Your task to perform on an android device: Open Google Chrome and click the shortcut for Amazon.com Image 0: 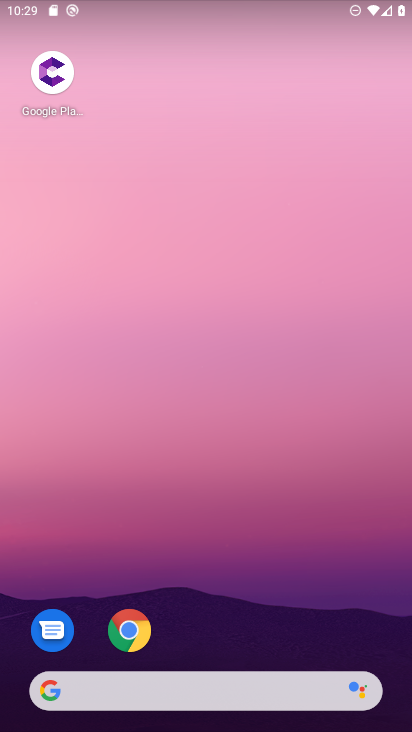
Step 0: click (129, 632)
Your task to perform on an android device: Open Google Chrome and click the shortcut for Amazon.com Image 1: 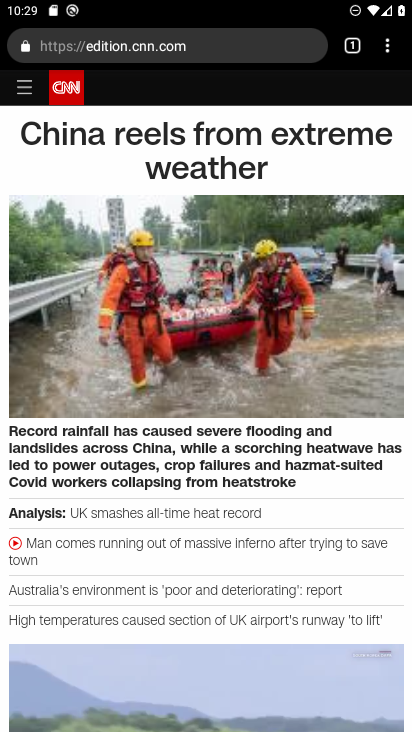
Step 1: click (220, 52)
Your task to perform on an android device: Open Google Chrome and click the shortcut for Amazon.com Image 2: 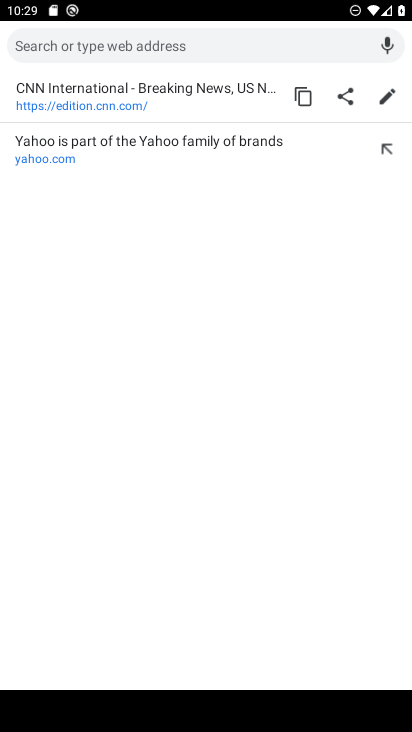
Step 2: type "Amazon.com"
Your task to perform on an android device: Open Google Chrome and click the shortcut for Amazon.com Image 3: 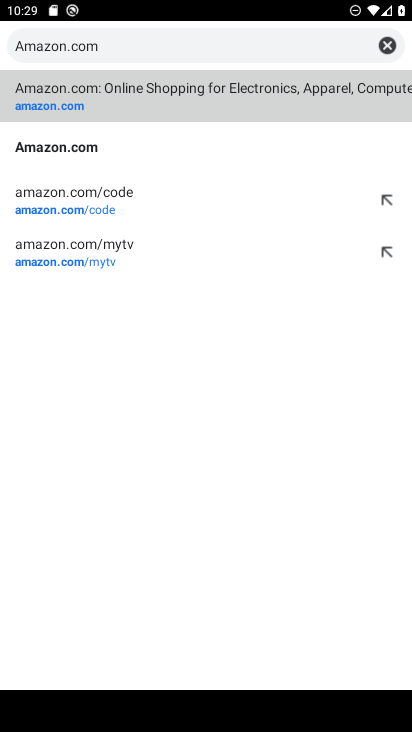
Step 3: click (89, 146)
Your task to perform on an android device: Open Google Chrome and click the shortcut for Amazon.com Image 4: 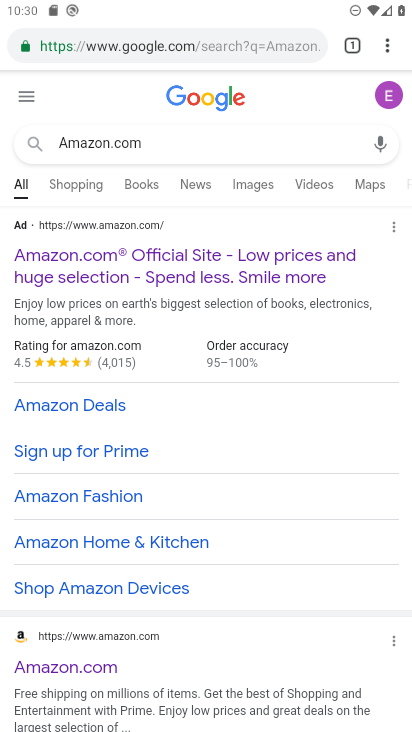
Step 4: click (58, 657)
Your task to perform on an android device: Open Google Chrome and click the shortcut for Amazon.com Image 5: 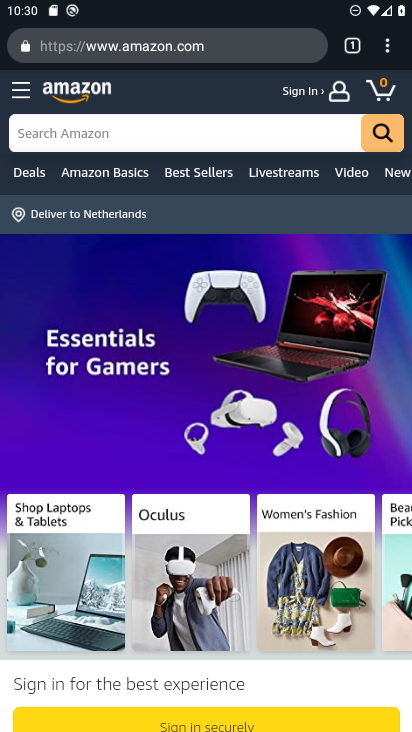
Step 5: click (388, 47)
Your task to perform on an android device: Open Google Chrome and click the shortcut for Amazon.com Image 6: 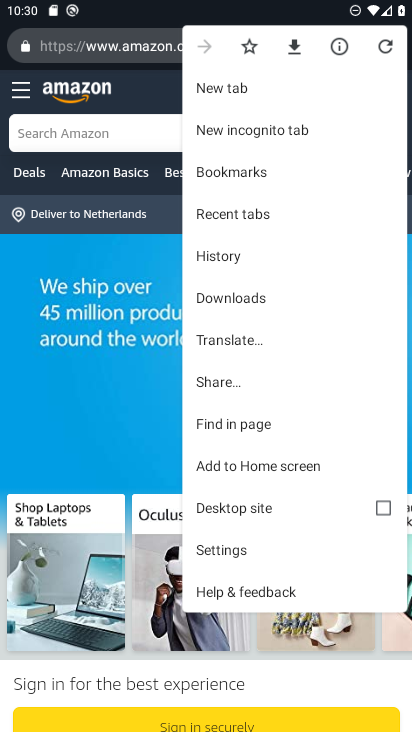
Step 6: click (250, 465)
Your task to perform on an android device: Open Google Chrome and click the shortcut for Amazon.com Image 7: 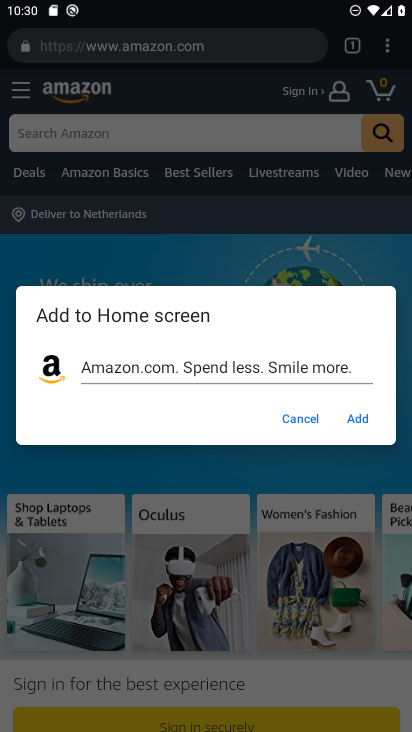
Step 7: click (354, 420)
Your task to perform on an android device: Open Google Chrome and click the shortcut for Amazon.com Image 8: 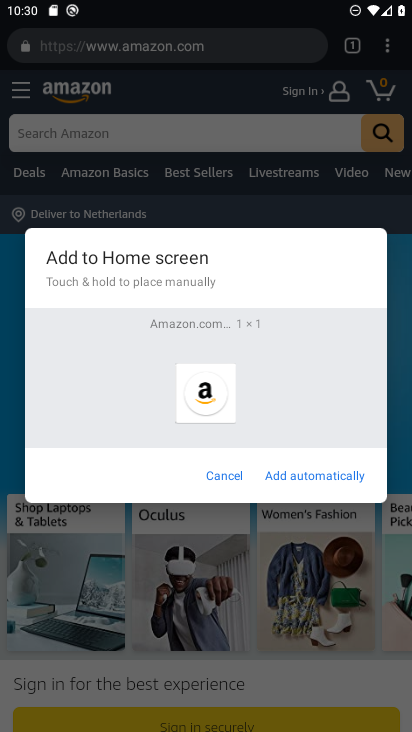
Step 8: click (331, 469)
Your task to perform on an android device: Open Google Chrome and click the shortcut for Amazon.com Image 9: 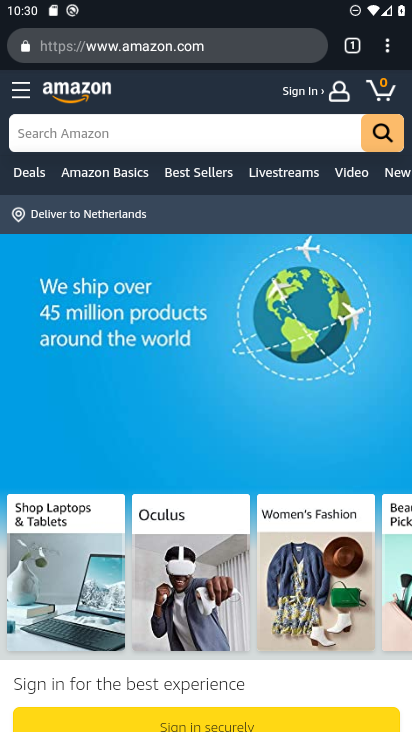
Step 9: task complete